Your task to perform on an android device: toggle wifi Image 0: 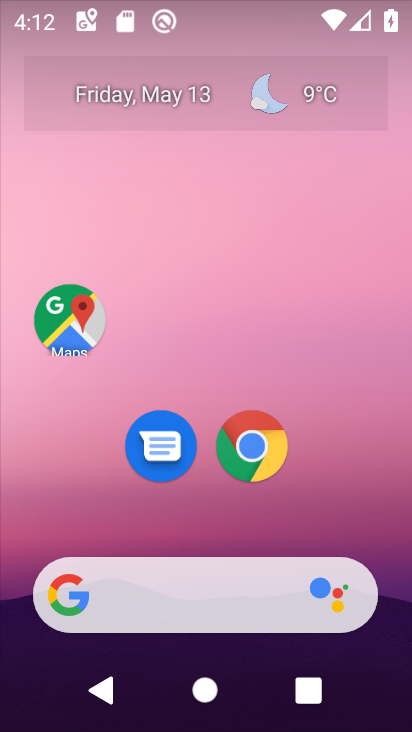
Step 0: drag from (250, 536) to (275, 95)
Your task to perform on an android device: toggle wifi Image 1: 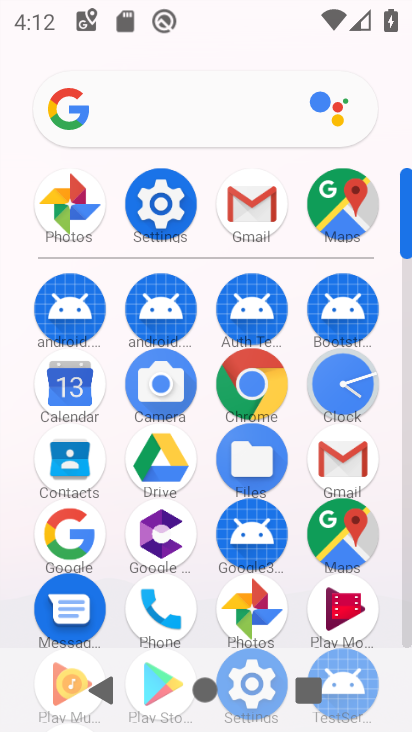
Step 1: click (157, 212)
Your task to perform on an android device: toggle wifi Image 2: 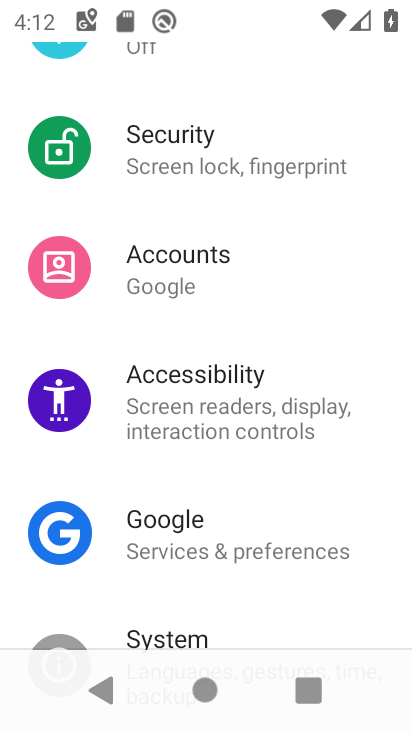
Step 2: drag from (160, 215) to (158, 495)
Your task to perform on an android device: toggle wifi Image 3: 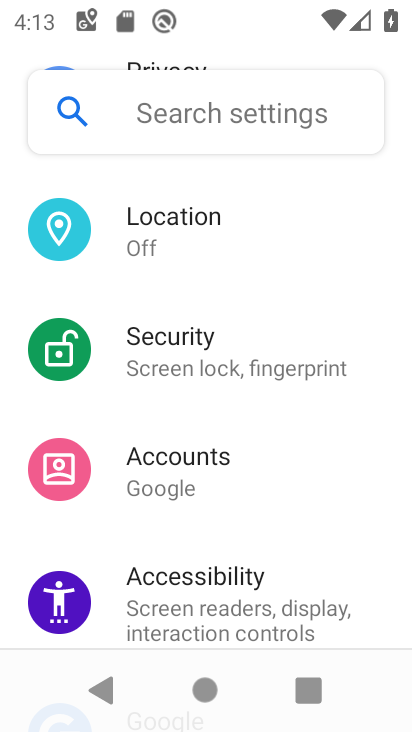
Step 3: drag from (227, 299) to (183, 603)
Your task to perform on an android device: toggle wifi Image 4: 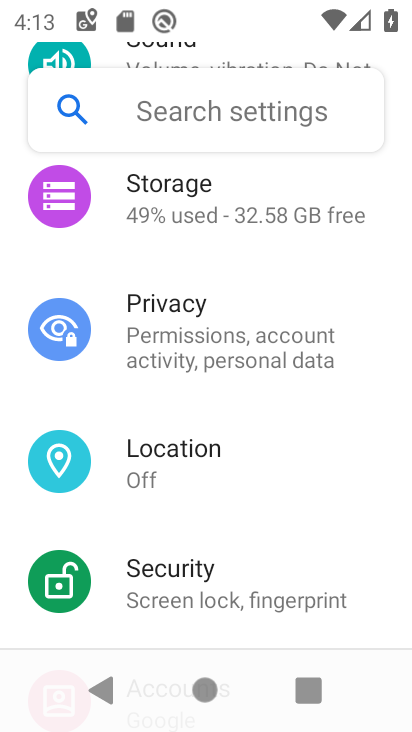
Step 4: drag from (211, 361) to (205, 491)
Your task to perform on an android device: toggle wifi Image 5: 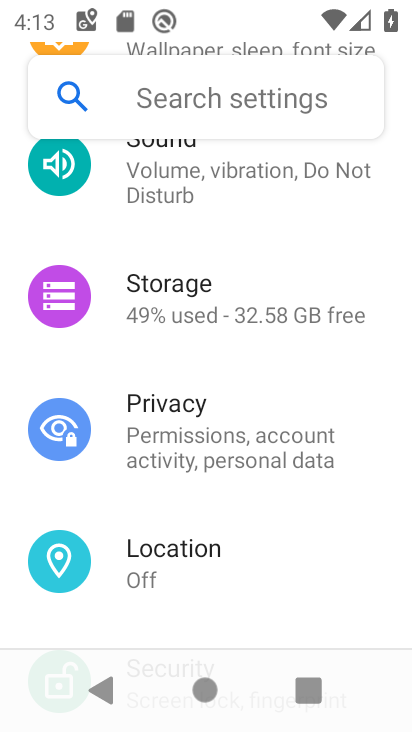
Step 5: drag from (267, 314) to (267, 454)
Your task to perform on an android device: toggle wifi Image 6: 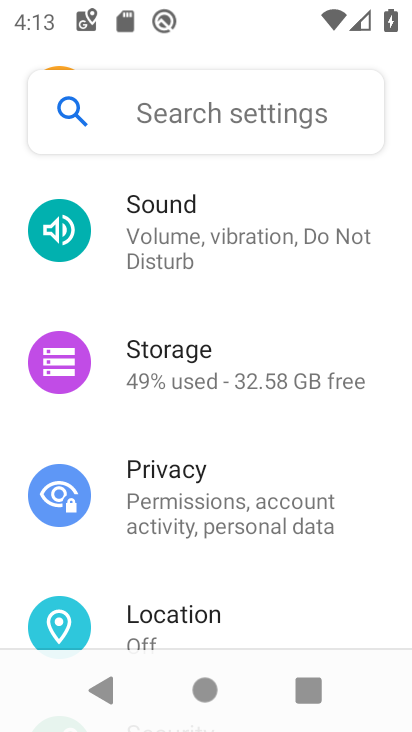
Step 6: drag from (264, 318) to (282, 538)
Your task to perform on an android device: toggle wifi Image 7: 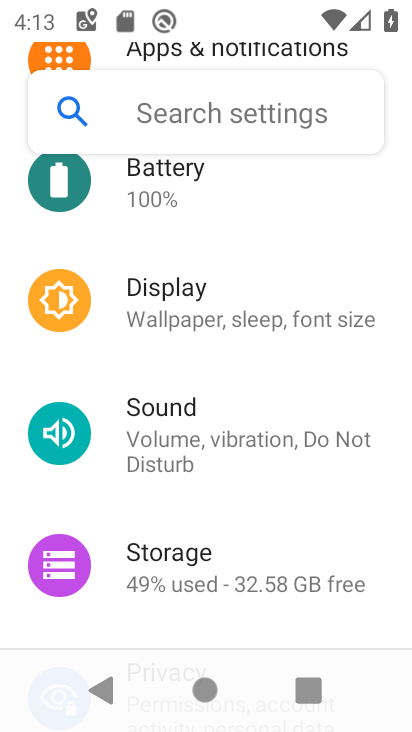
Step 7: drag from (242, 425) to (240, 570)
Your task to perform on an android device: toggle wifi Image 8: 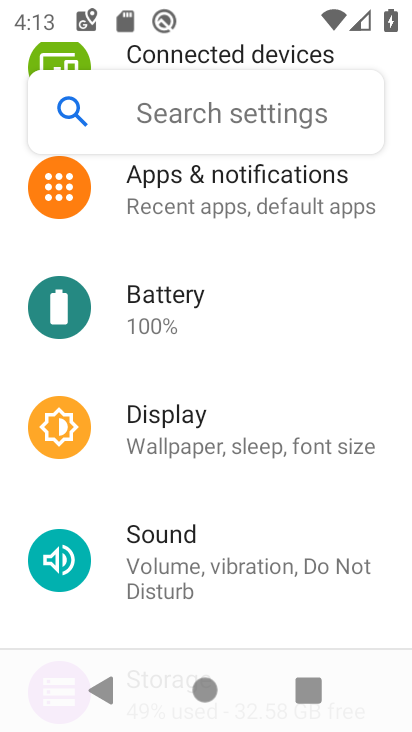
Step 8: drag from (250, 308) to (259, 599)
Your task to perform on an android device: toggle wifi Image 9: 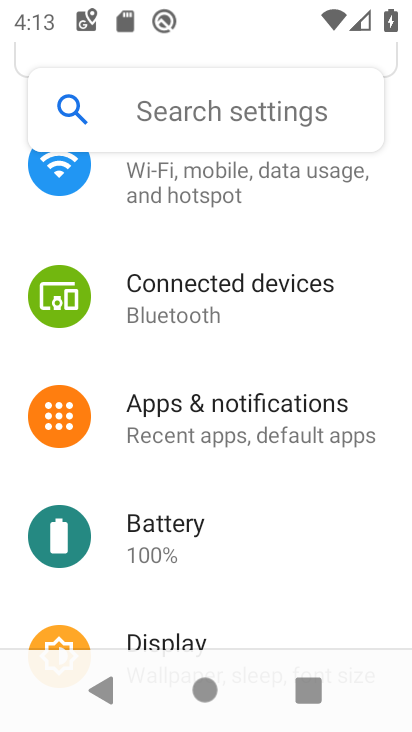
Step 9: click (264, 180)
Your task to perform on an android device: toggle wifi Image 10: 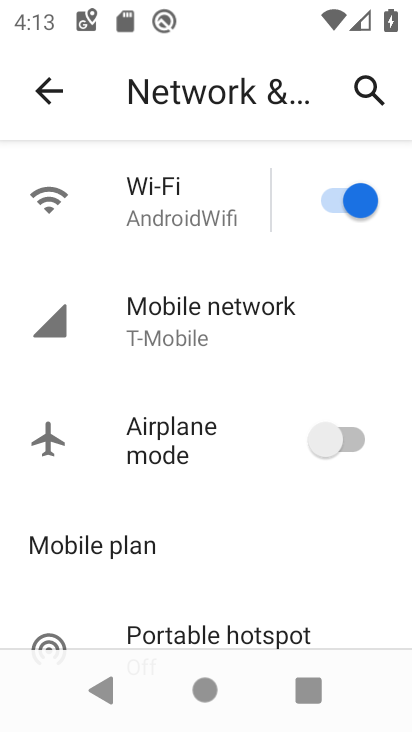
Step 10: click (341, 204)
Your task to perform on an android device: toggle wifi Image 11: 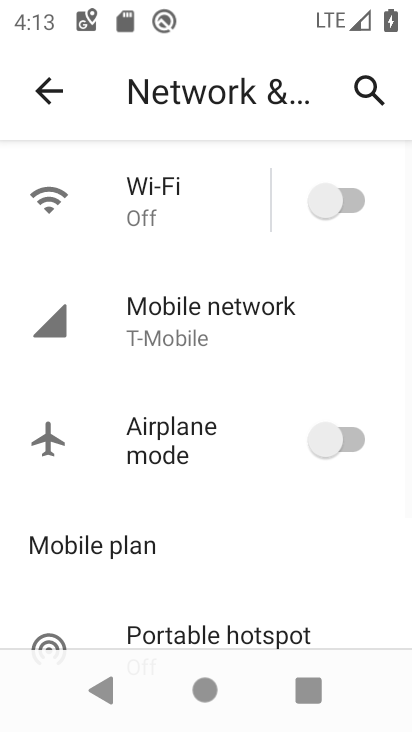
Step 11: task complete